Your task to perform on an android device: turn off wifi Image 0: 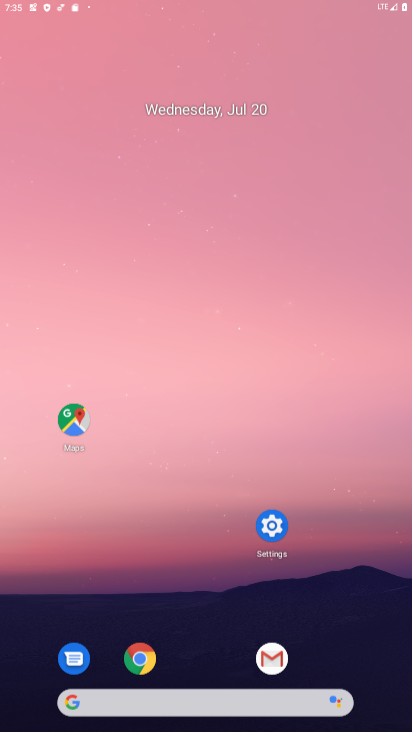
Step 0: press home button
Your task to perform on an android device: turn off wifi Image 1: 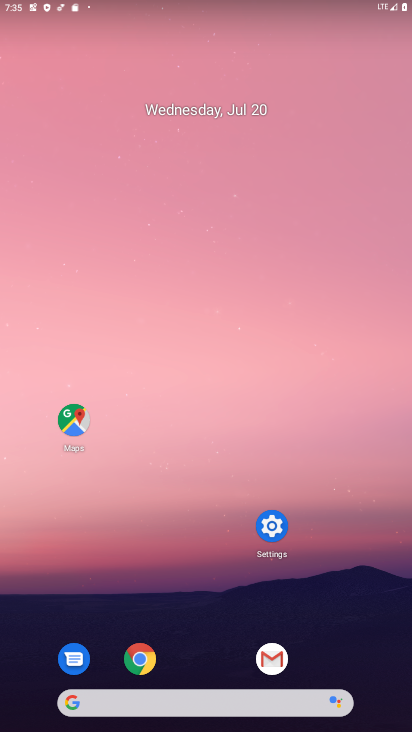
Step 1: drag from (300, 699) to (274, 165)
Your task to perform on an android device: turn off wifi Image 2: 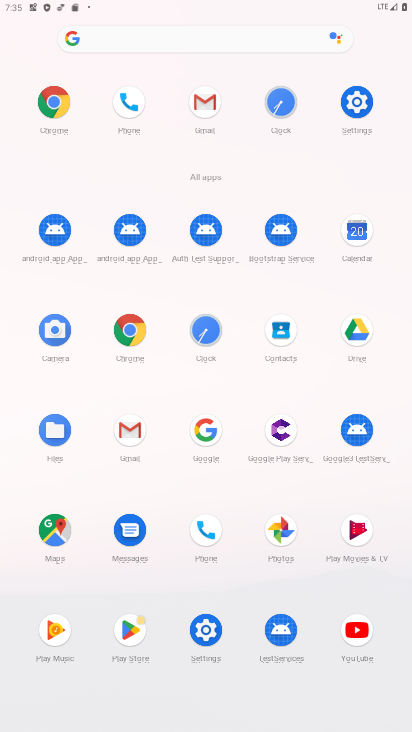
Step 2: click (360, 117)
Your task to perform on an android device: turn off wifi Image 3: 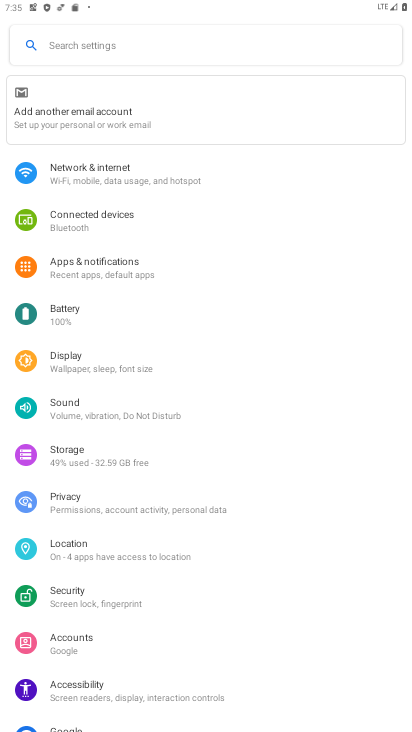
Step 3: click (104, 177)
Your task to perform on an android device: turn off wifi Image 4: 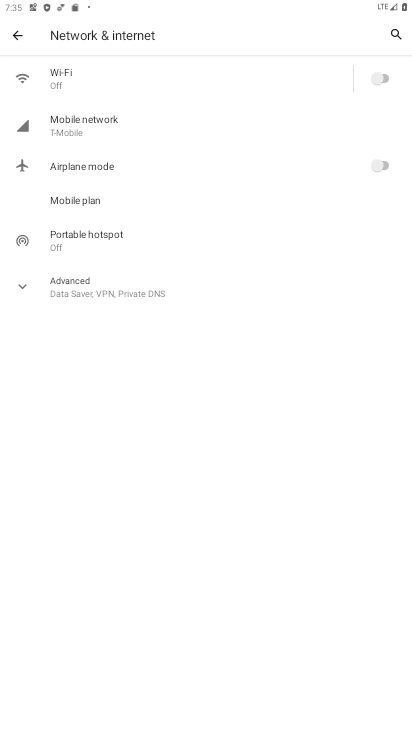
Step 4: task complete